Your task to perform on an android device: Open Wikipedia Image 0: 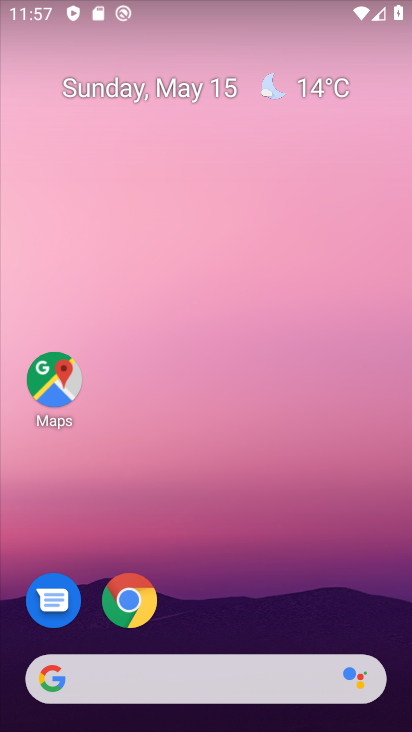
Step 0: drag from (287, 538) to (235, 14)
Your task to perform on an android device: Open Wikipedia Image 1: 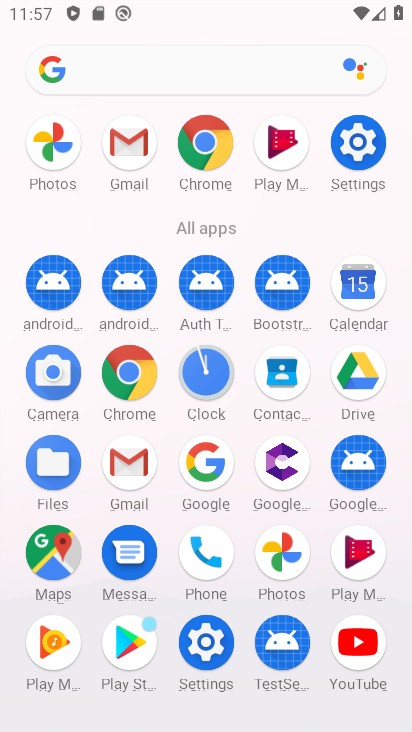
Step 1: drag from (5, 545) to (7, 292)
Your task to perform on an android device: Open Wikipedia Image 2: 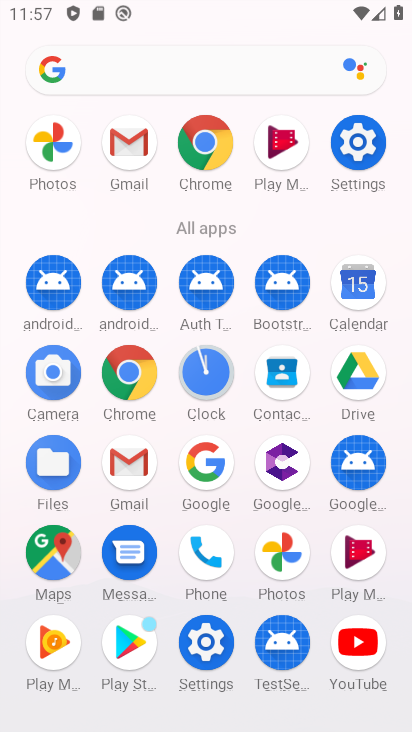
Step 2: click (132, 366)
Your task to perform on an android device: Open Wikipedia Image 3: 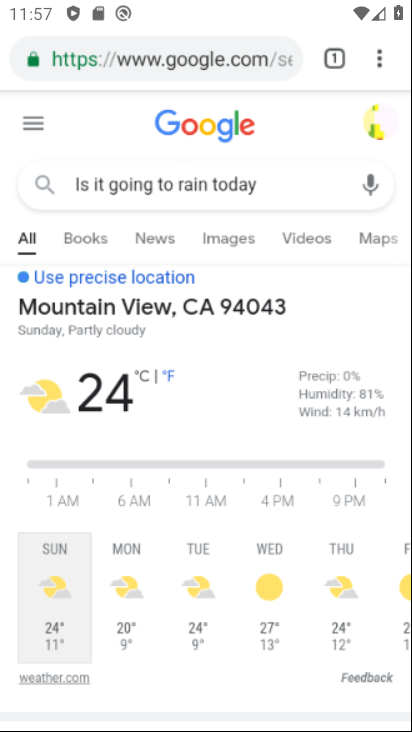
Step 3: click (183, 52)
Your task to perform on an android device: Open Wikipedia Image 4: 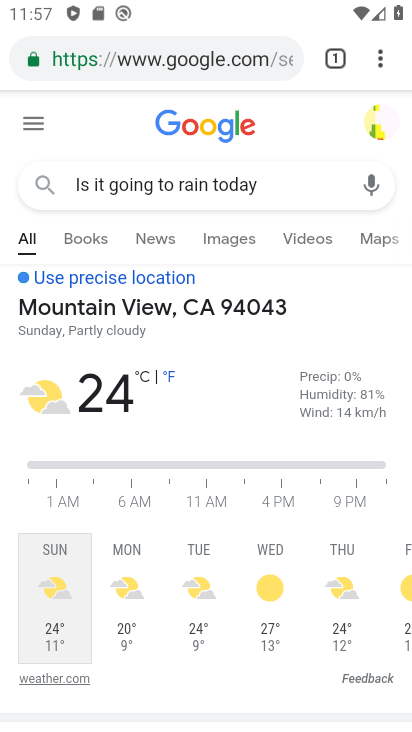
Step 4: click (199, 62)
Your task to perform on an android device: Open Wikipedia Image 5: 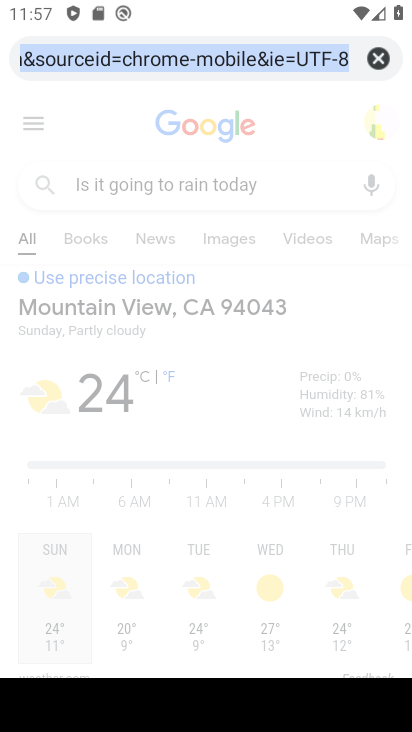
Step 5: click (385, 61)
Your task to perform on an android device: Open Wikipedia Image 6: 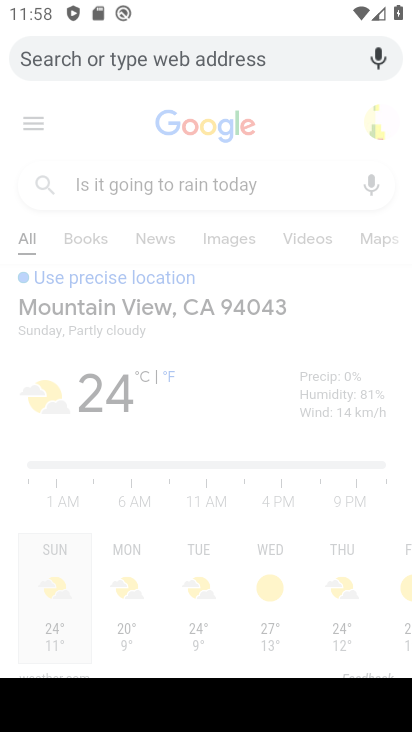
Step 6: type "Wikipedia"
Your task to perform on an android device: Open Wikipedia Image 7: 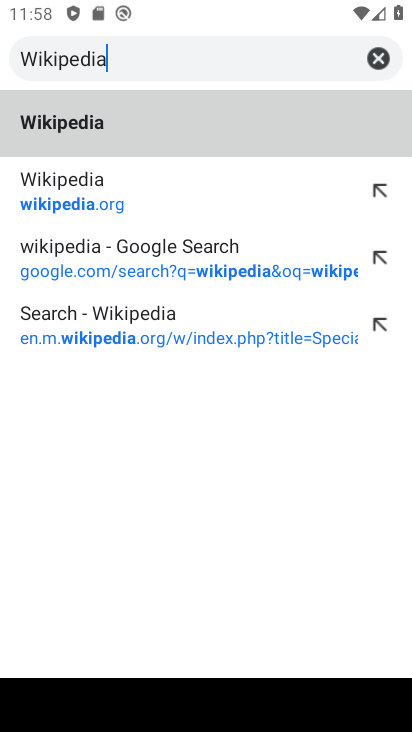
Step 7: click (97, 121)
Your task to perform on an android device: Open Wikipedia Image 8: 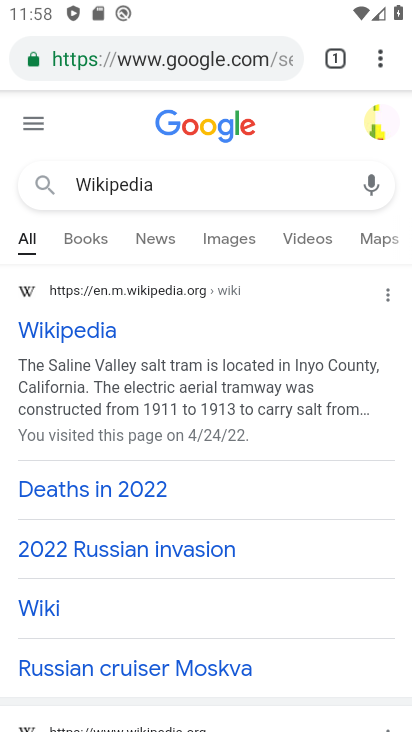
Step 8: click (41, 331)
Your task to perform on an android device: Open Wikipedia Image 9: 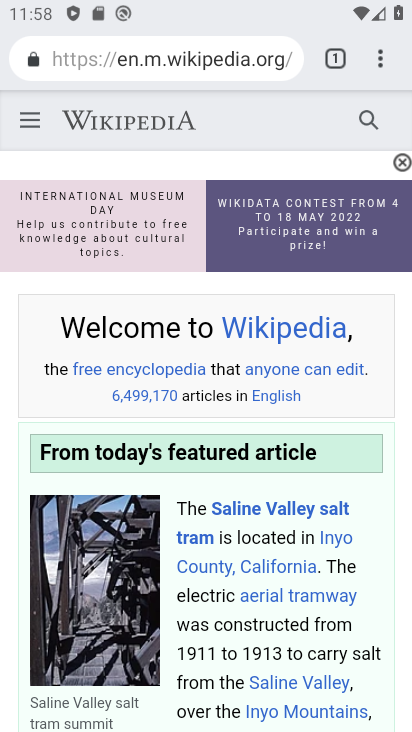
Step 9: task complete